Your task to perform on an android device: Set the phone to "Do not disturb". Image 0: 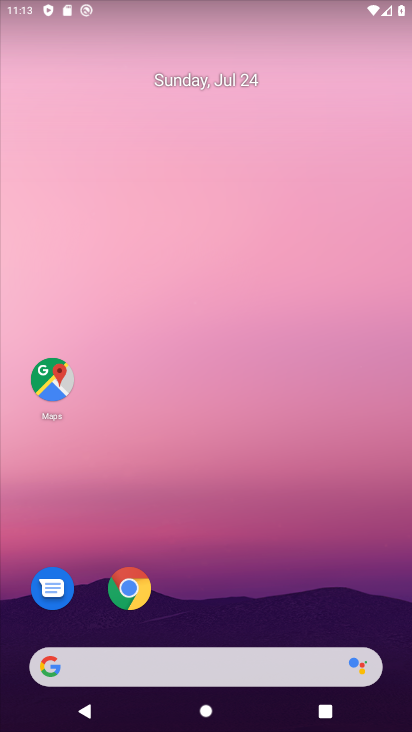
Step 0: click (223, 109)
Your task to perform on an android device: Set the phone to "Do not disturb". Image 1: 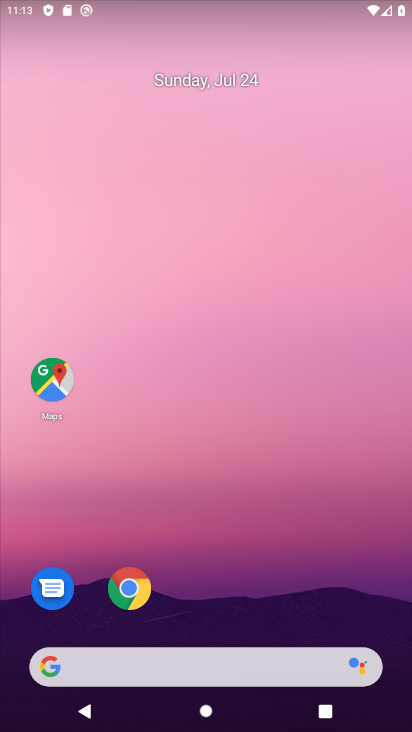
Step 1: drag from (363, 587) to (319, 98)
Your task to perform on an android device: Set the phone to "Do not disturb". Image 2: 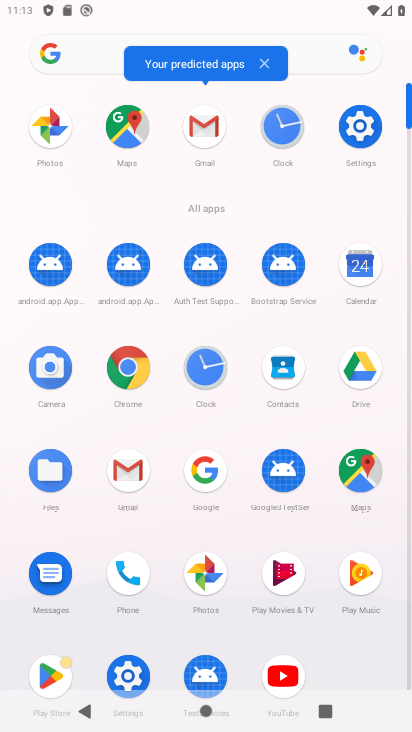
Step 2: click (371, 132)
Your task to perform on an android device: Set the phone to "Do not disturb". Image 3: 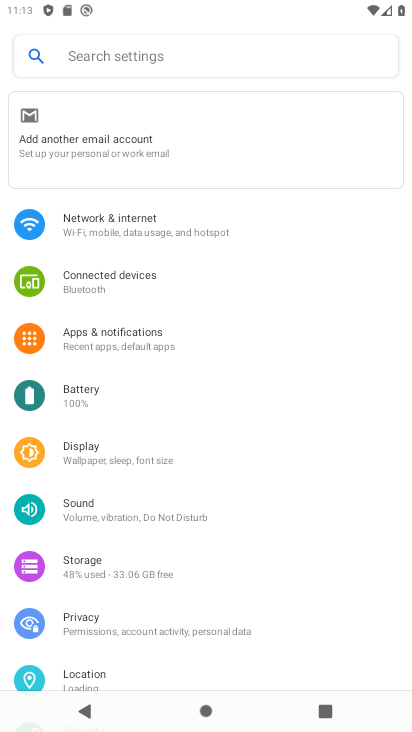
Step 3: drag from (243, 656) to (231, 520)
Your task to perform on an android device: Set the phone to "Do not disturb". Image 4: 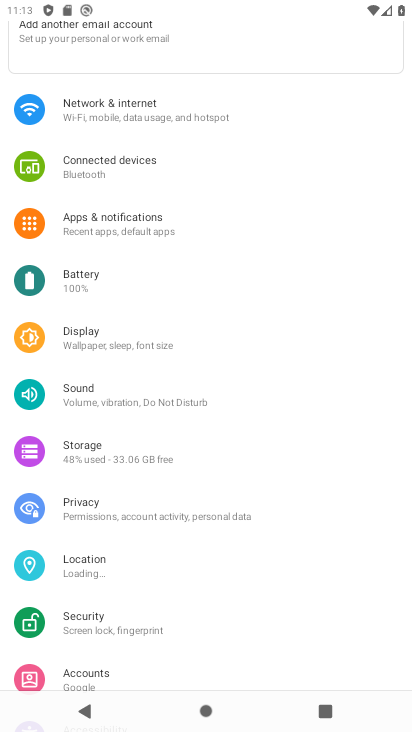
Step 4: click (158, 405)
Your task to perform on an android device: Set the phone to "Do not disturb". Image 5: 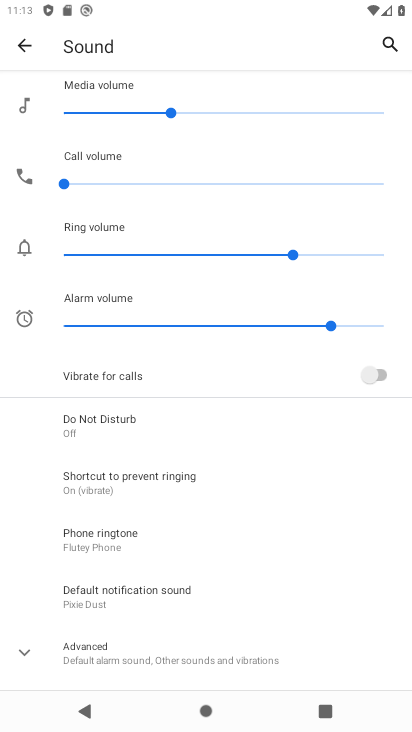
Step 5: click (157, 417)
Your task to perform on an android device: Set the phone to "Do not disturb". Image 6: 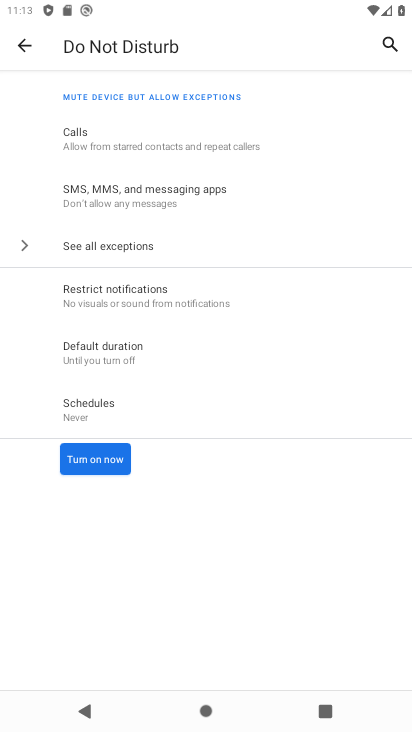
Step 6: click (123, 453)
Your task to perform on an android device: Set the phone to "Do not disturb". Image 7: 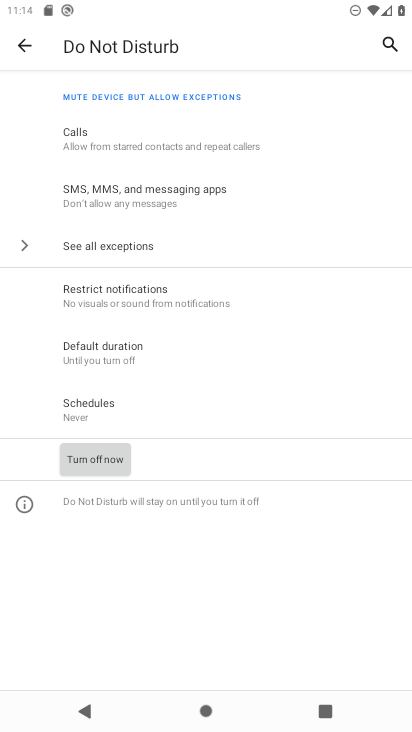
Step 7: task complete